Your task to perform on an android device: Search for vegetarian restaurants on Maps Image 0: 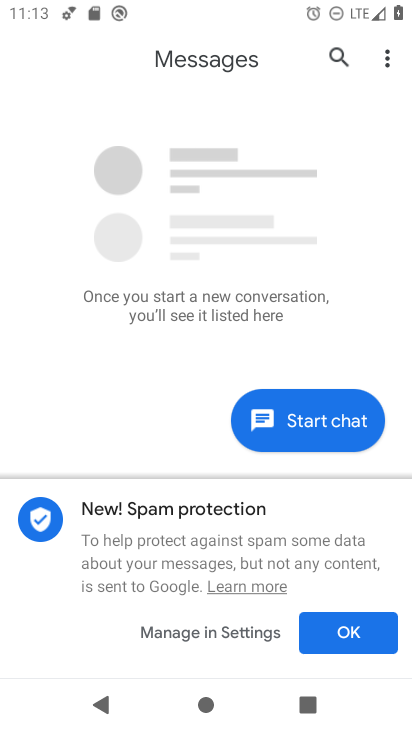
Step 0: press home button
Your task to perform on an android device: Search for vegetarian restaurants on Maps Image 1: 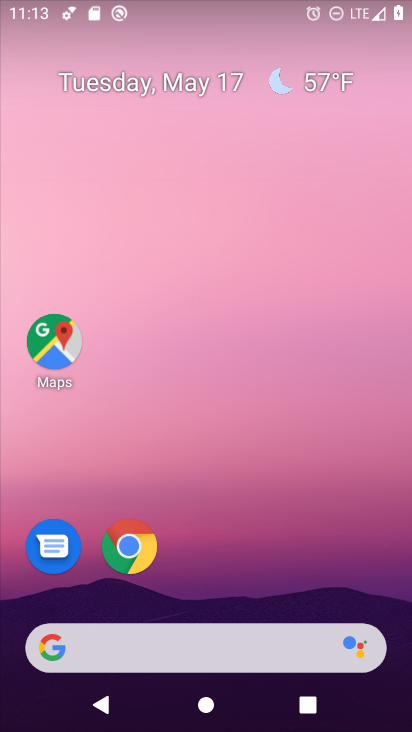
Step 1: click (46, 352)
Your task to perform on an android device: Search for vegetarian restaurants on Maps Image 2: 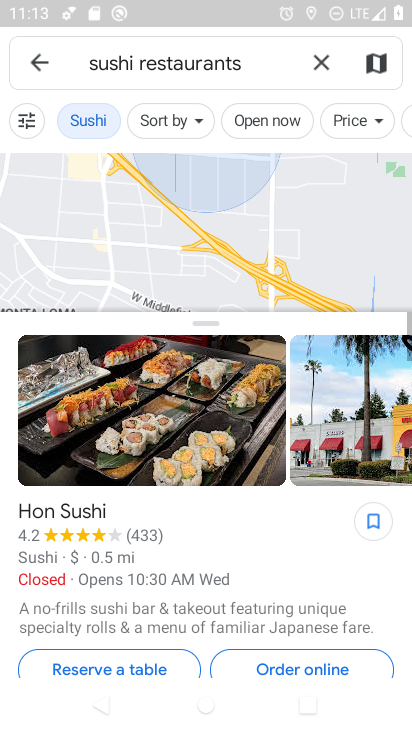
Step 2: click (322, 67)
Your task to perform on an android device: Search for vegetarian restaurants on Maps Image 3: 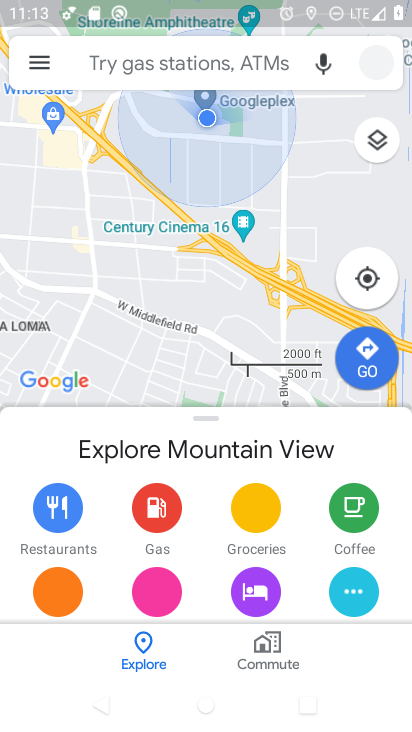
Step 3: click (125, 64)
Your task to perform on an android device: Search for vegetarian restaurants on Maps Image 4: 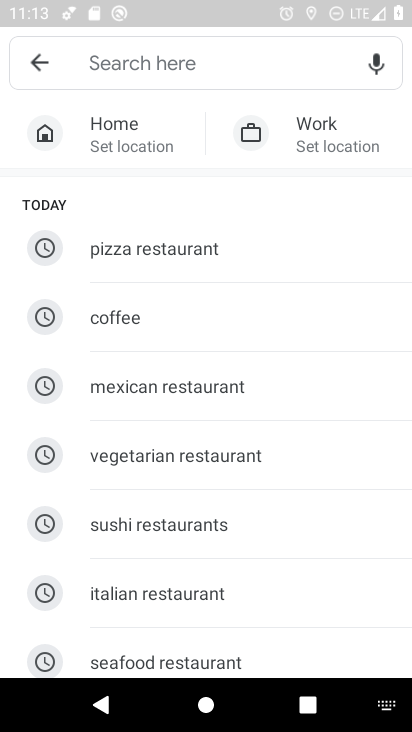
Step 4: type "vegetarian restaurant"
Your task to perform on an android device: Search for vegetarian restaurants on Maps Image 5: 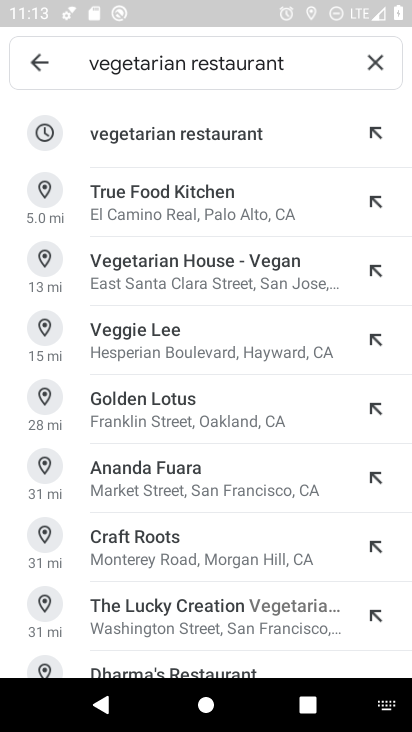
Step 5: click (158, 139)
Your task to perform on an android device: Search for vegetarian restaurants on Maps Image 6: 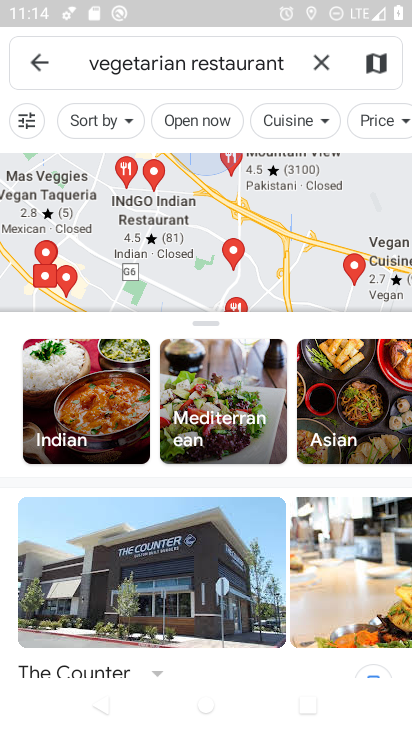
Step 6: task complete